Your task to perform on an android device: turn on javascript in the chrome app Image 0: 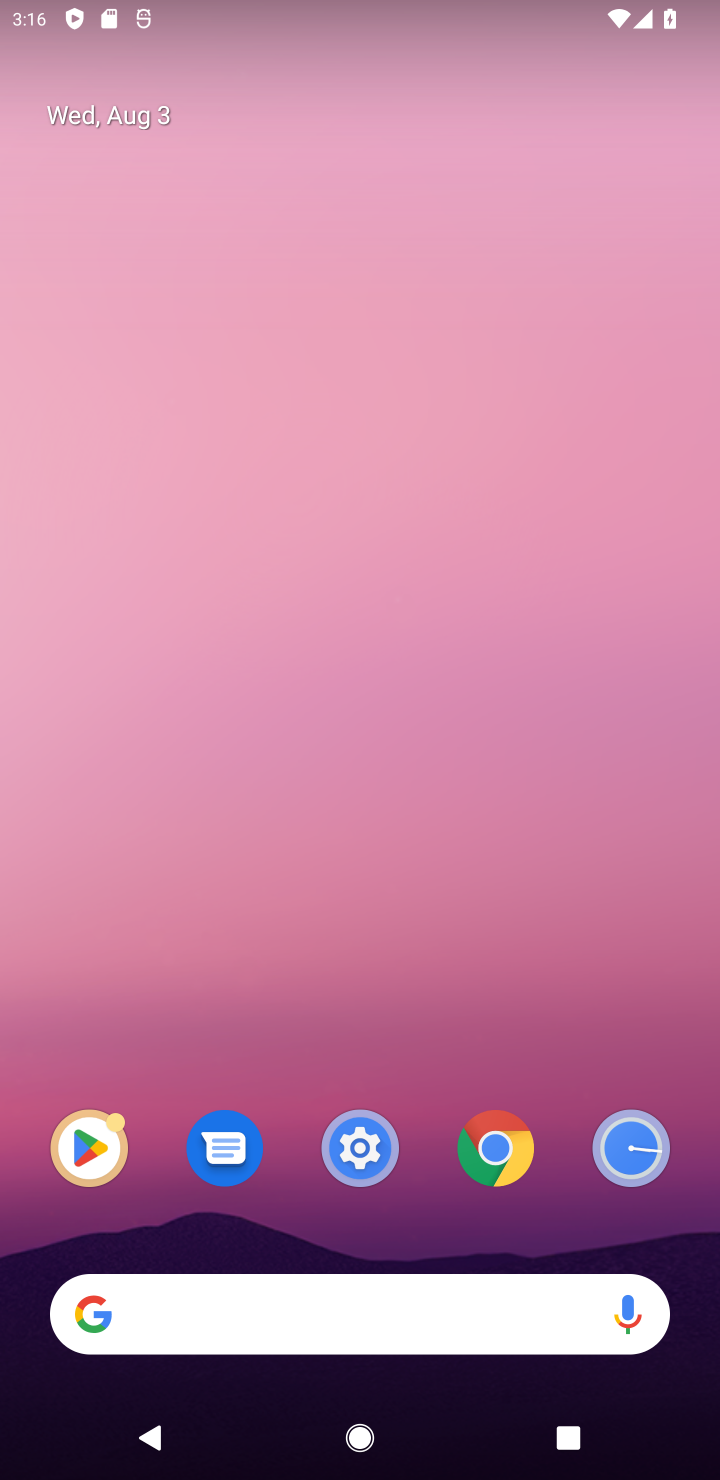
Step 0: drag from (426, 1055) to (457, 143)
Your task to perform on an android device: turn on javascript in the chrome app Image 1: 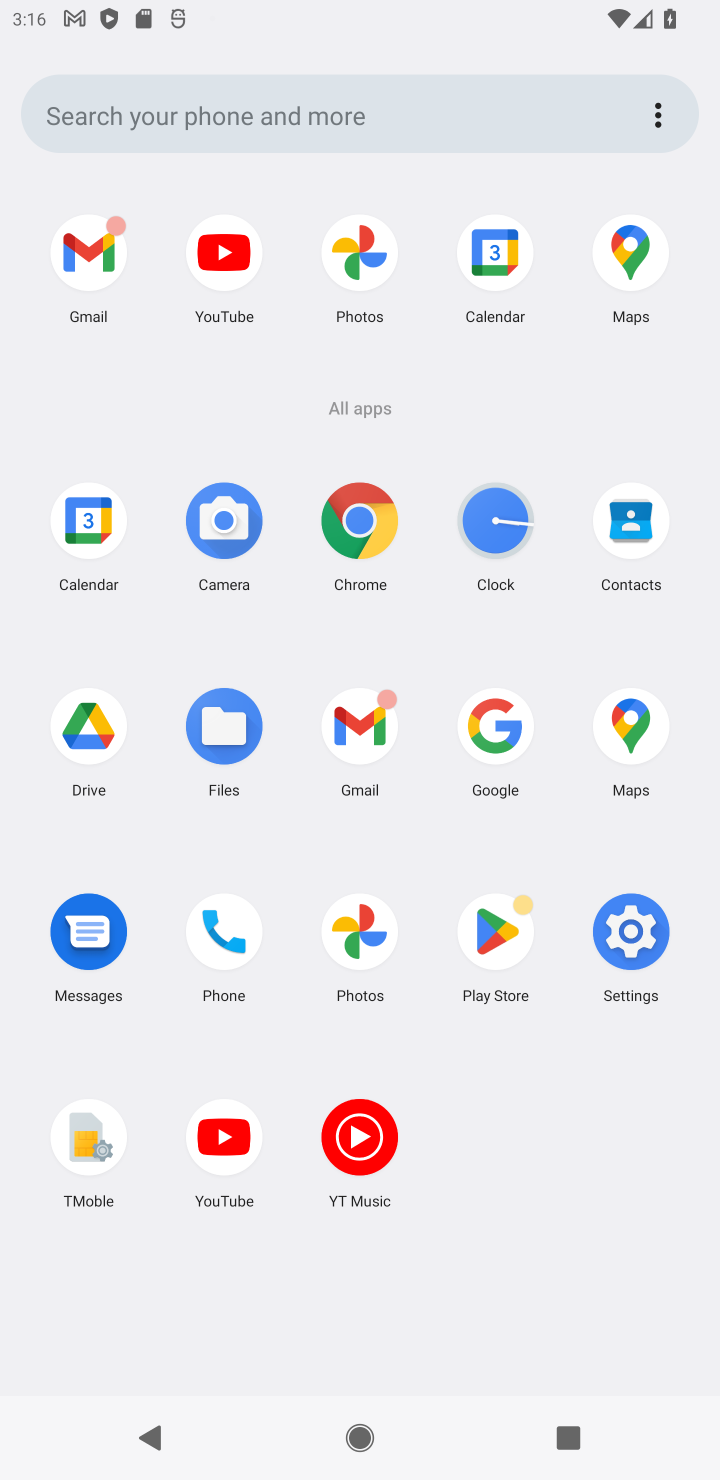
Step 1: click (361, 548)
Your task to perform on an android device: turn on javascript in the chrome app Image 2: 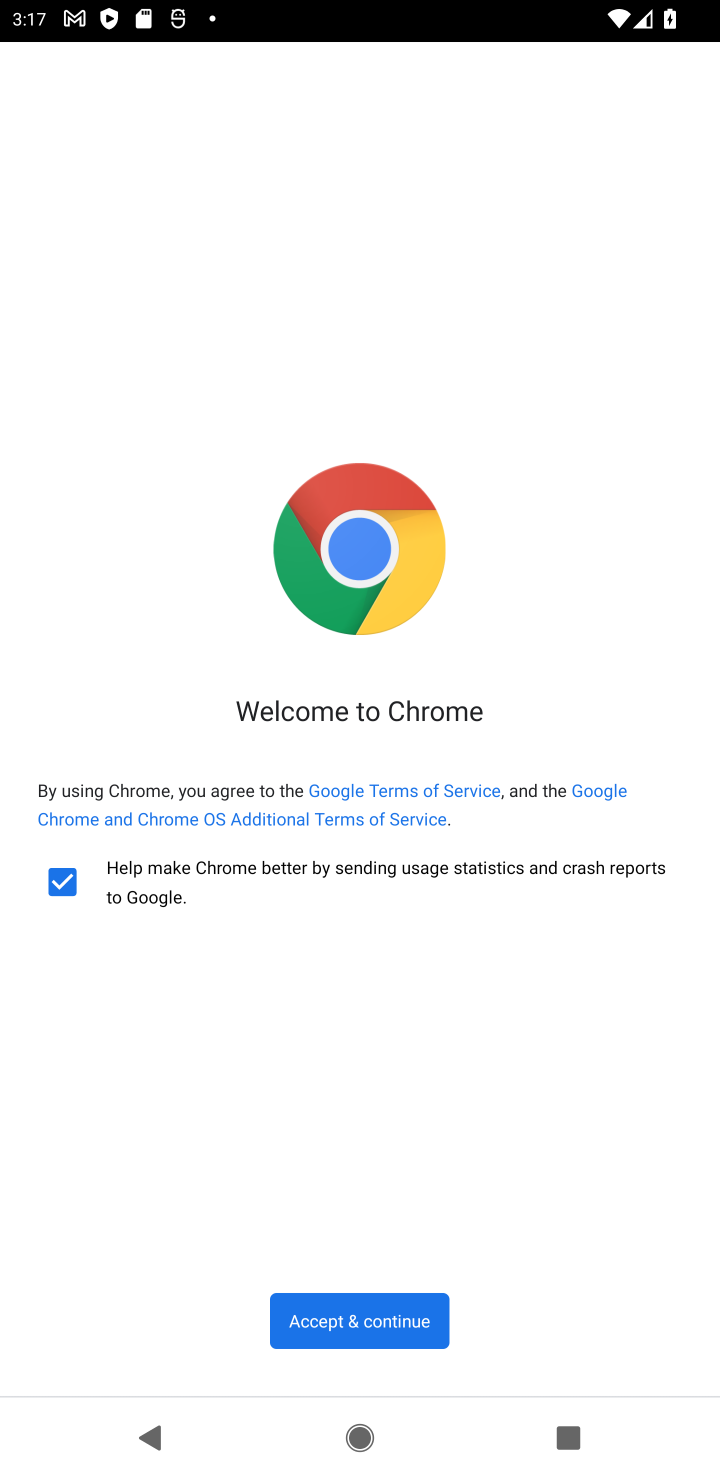
Step 2: click (364, 1321)
Your task to perform on an android device: turn on javascript in the chrome app Image 3: 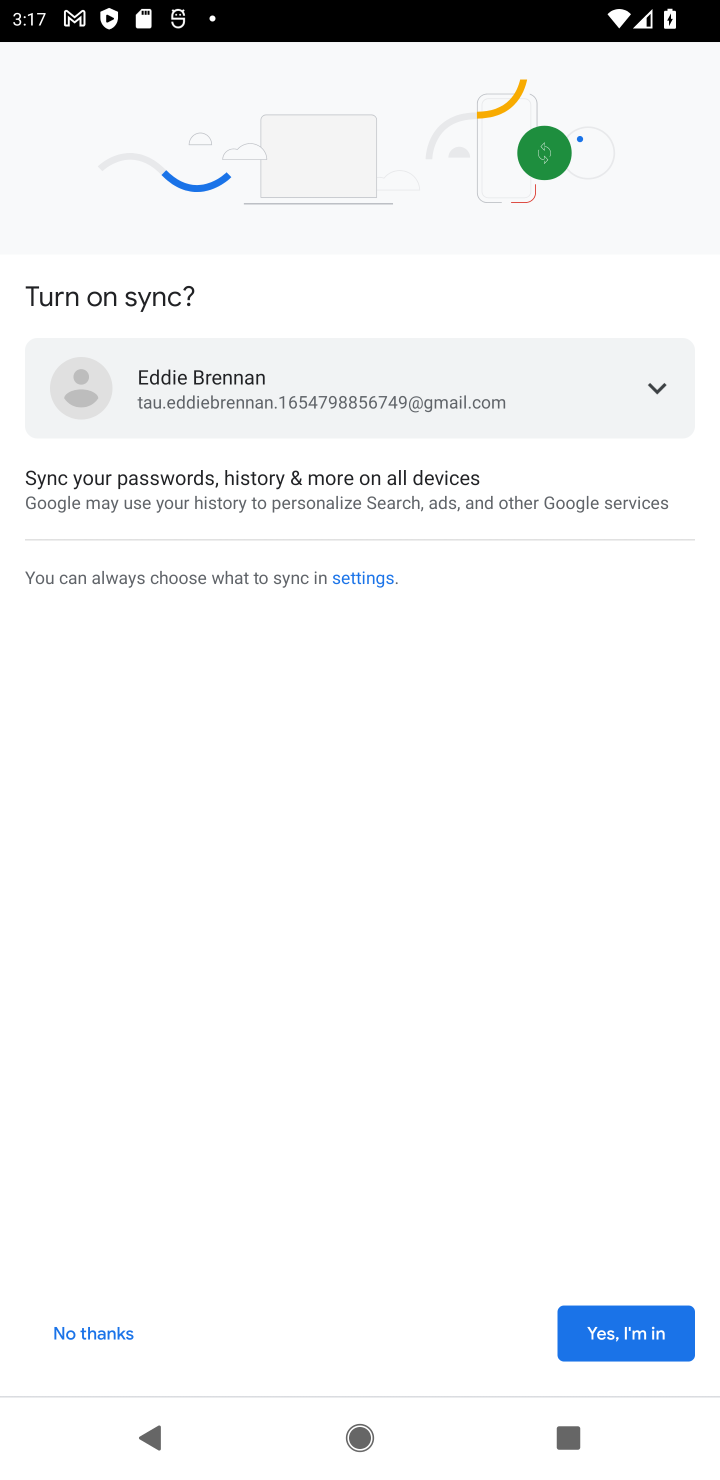
Step 3: click (634, 1344)
Your task to perform on an android device: turn on javascript in the chrome app Image 4: 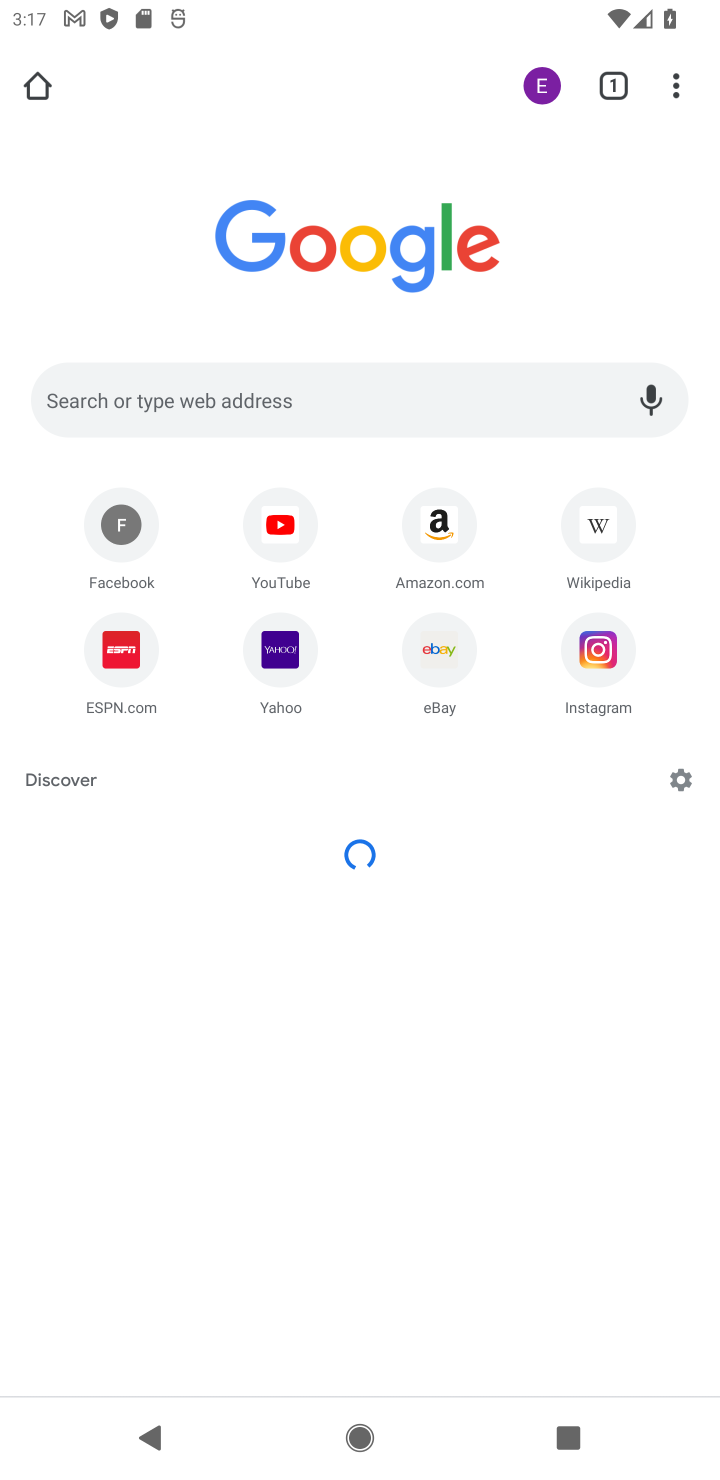
Step 4: click (678, 83)
Your task to perform on an android device: turn on javascript in the chrome app Image 5: 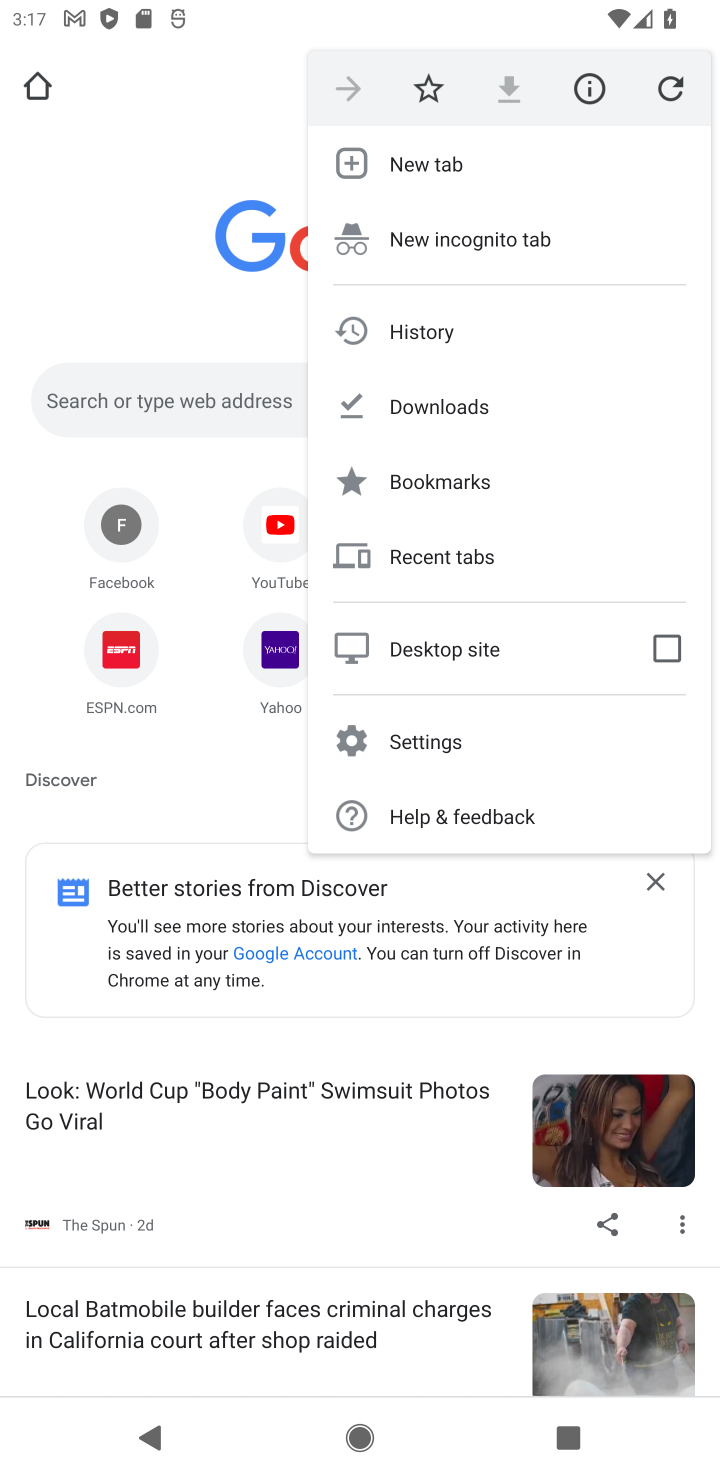
Step 5: click (456, 737)
Your task to perform on an android device: turn on javascript in the chrome app Image 6: 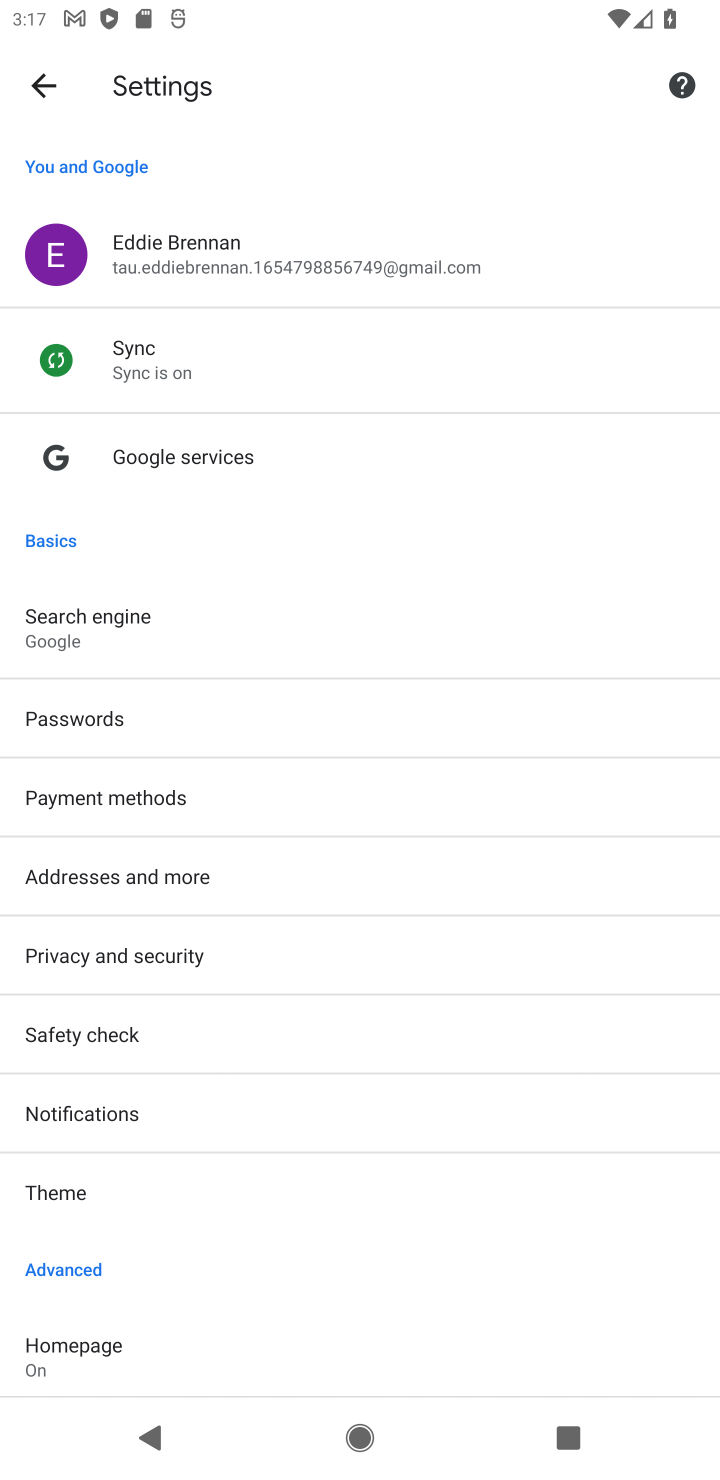
Step 6: drag from (536, 993) to (562, 683)
Your task to perform on an android device: turn on javascript in the chrome app Image 7: 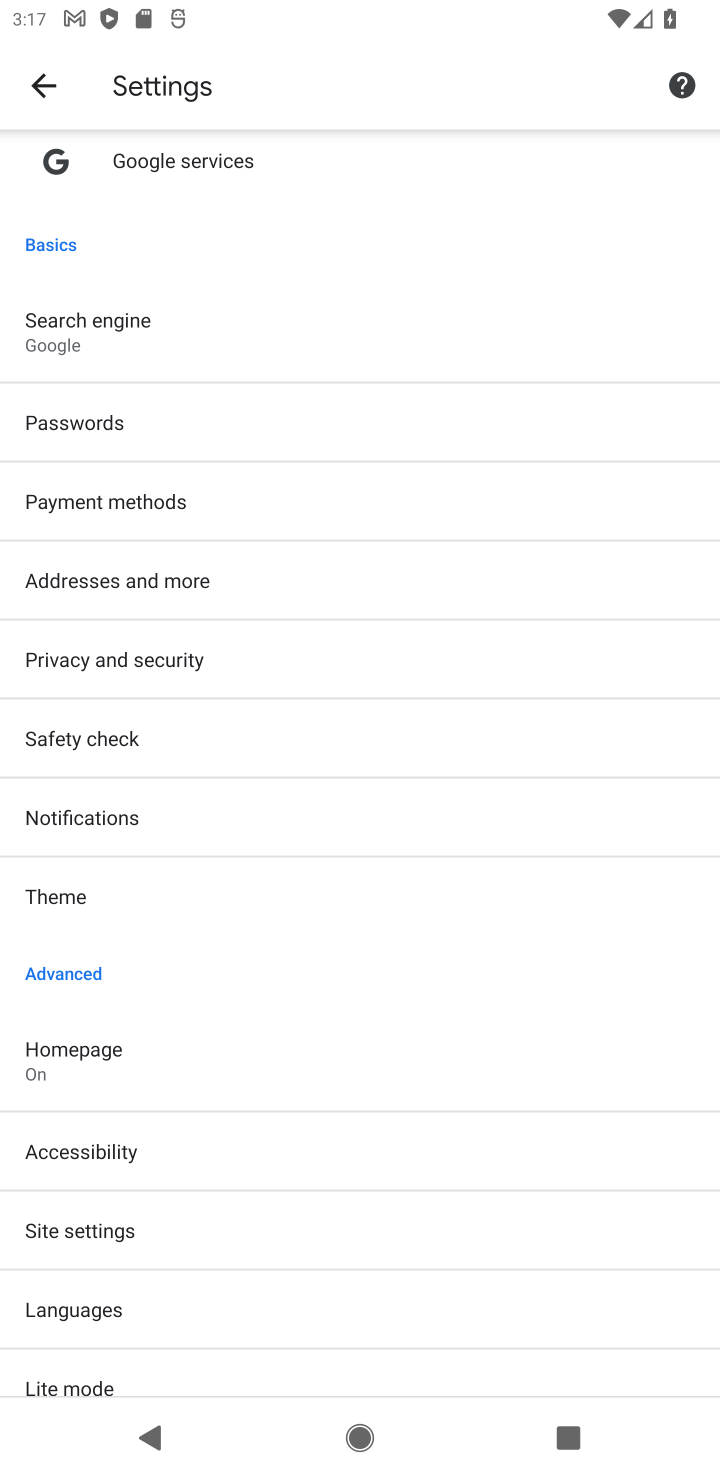
Step 7: drag from (472, 993) to (504, 707)
Your task to perform on an android device: turn on javascript in the chrome app Image 8: 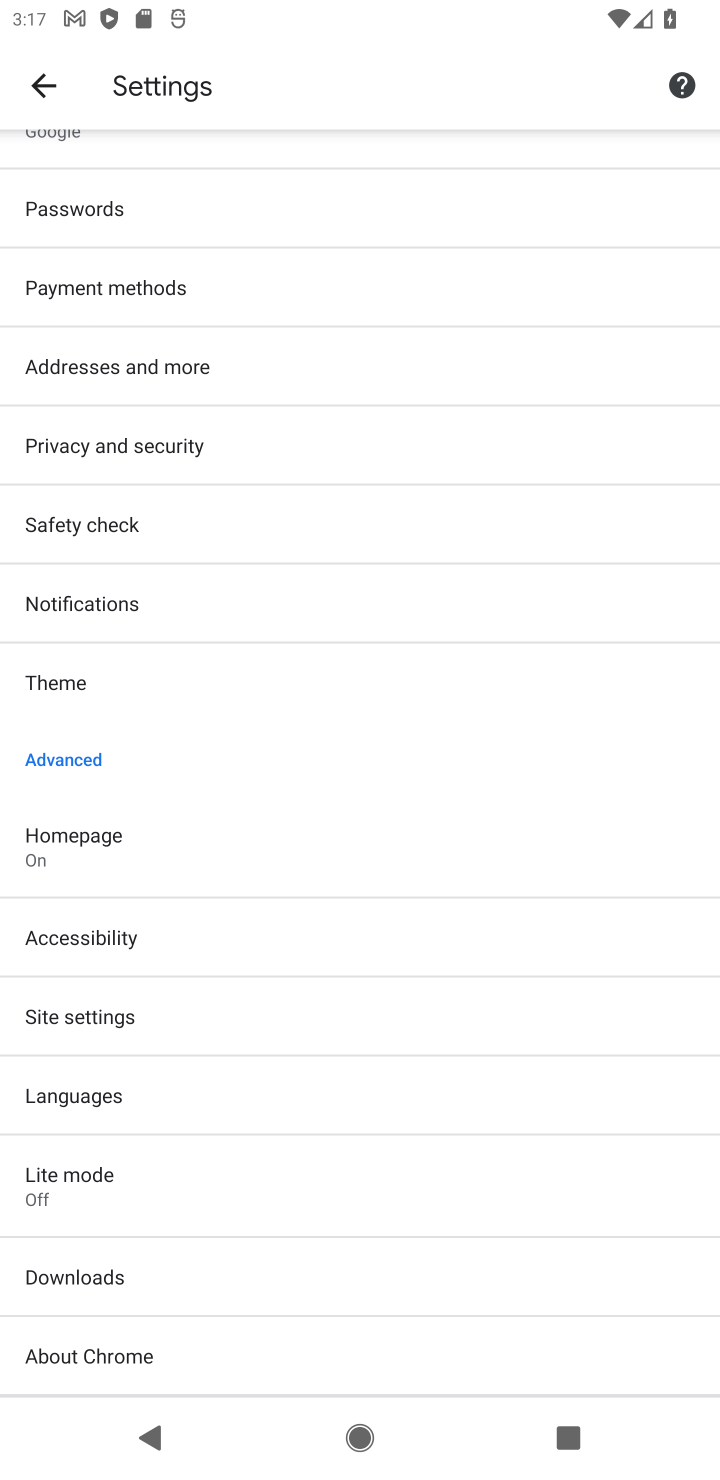
Step 8: drag from (428, 1066) to (445, 749)
Your task to perform on an android device: turn on javascript in the chrome app Image 9: 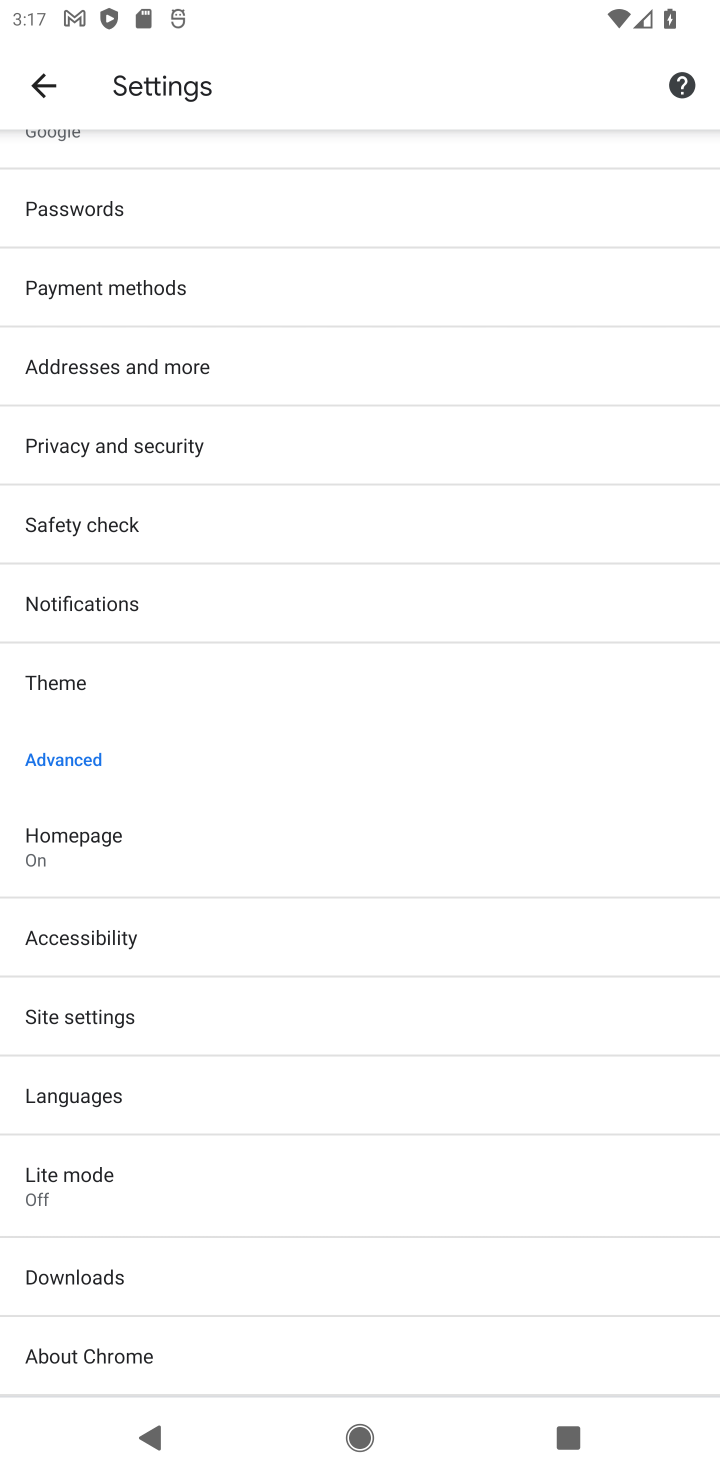
Step 9: click (400, 1017)
Your task to perform on an android device: turn on javascript in the chrome app Image 10: 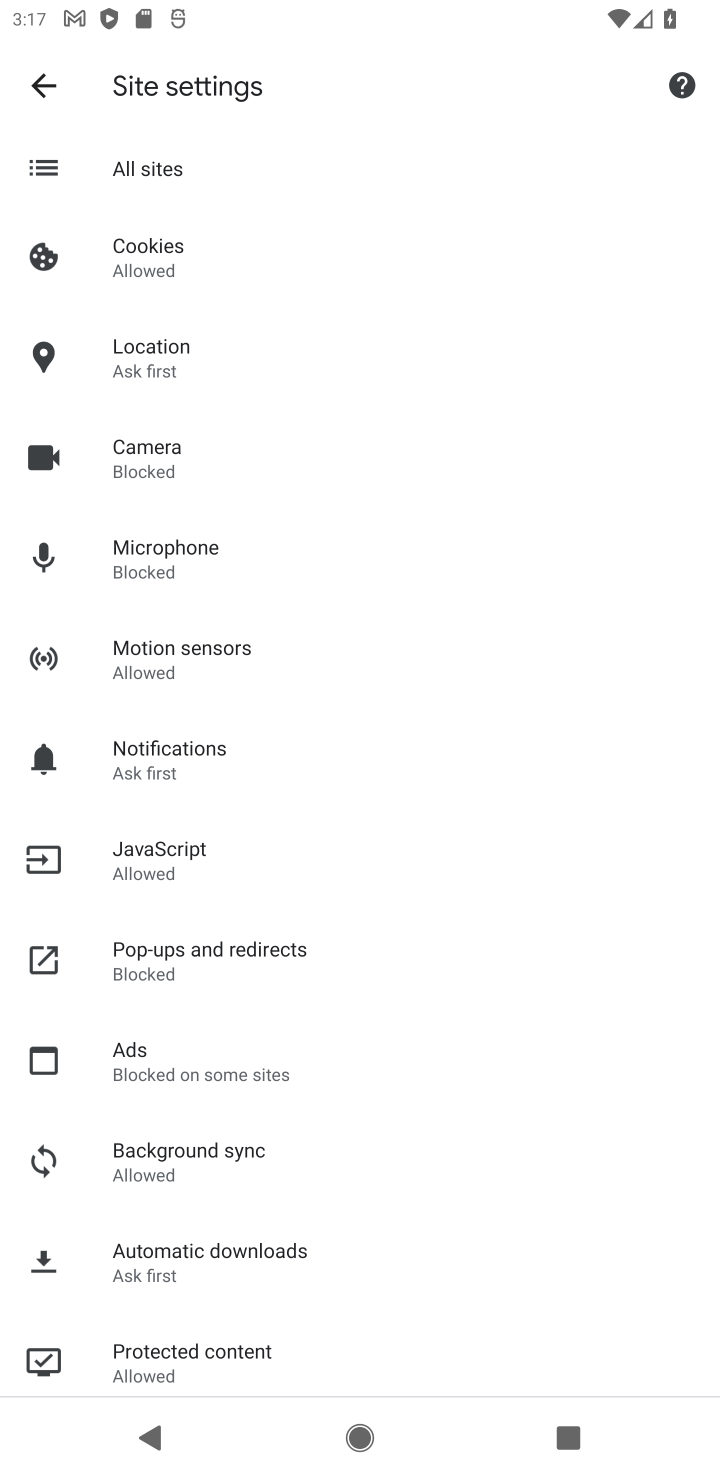
Step 10: drag from (448, 1076) to (493, 644)
Your task to perform on an android device: turn on javascript in the chrome app Image 11: 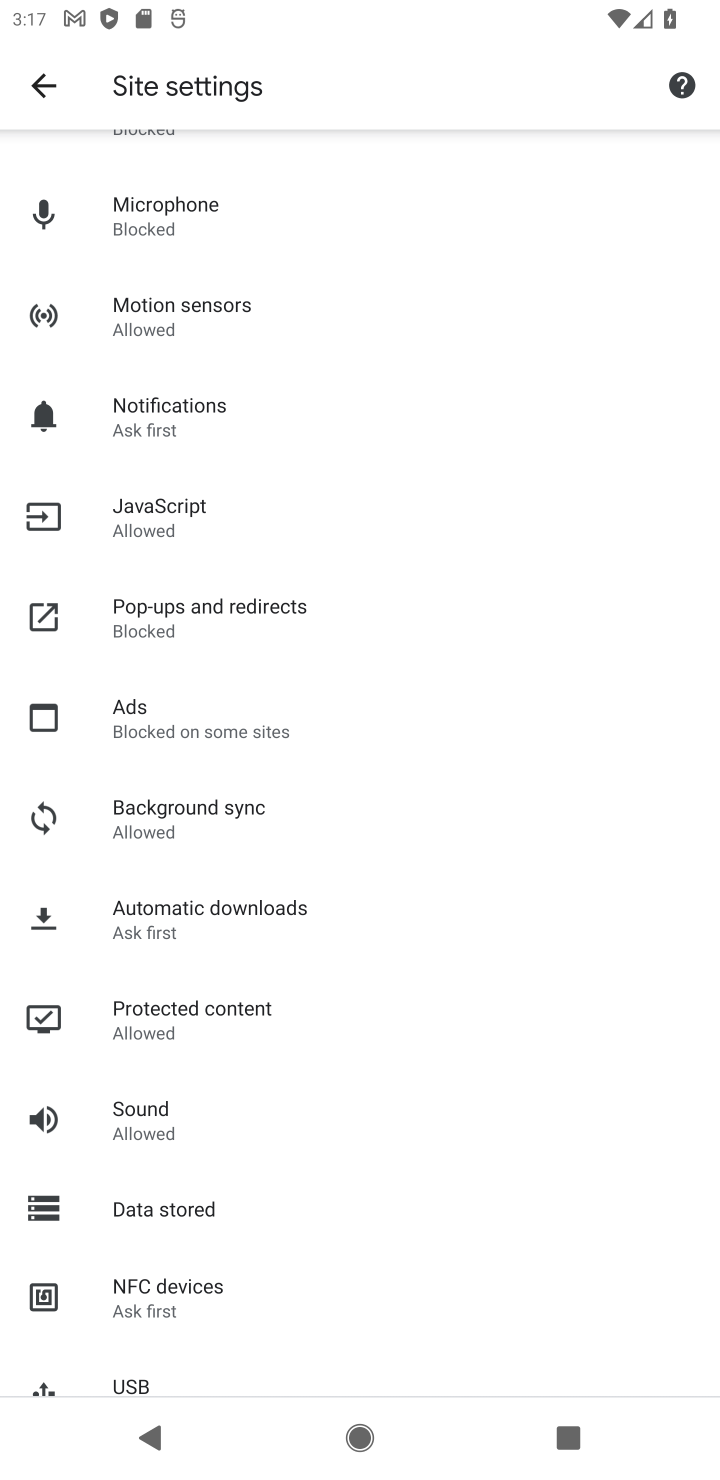
Step 11: drag from (419, 1120) to (465, 654)
Your task to perform on an android device: turn on javascript in the chrome app Image 12: 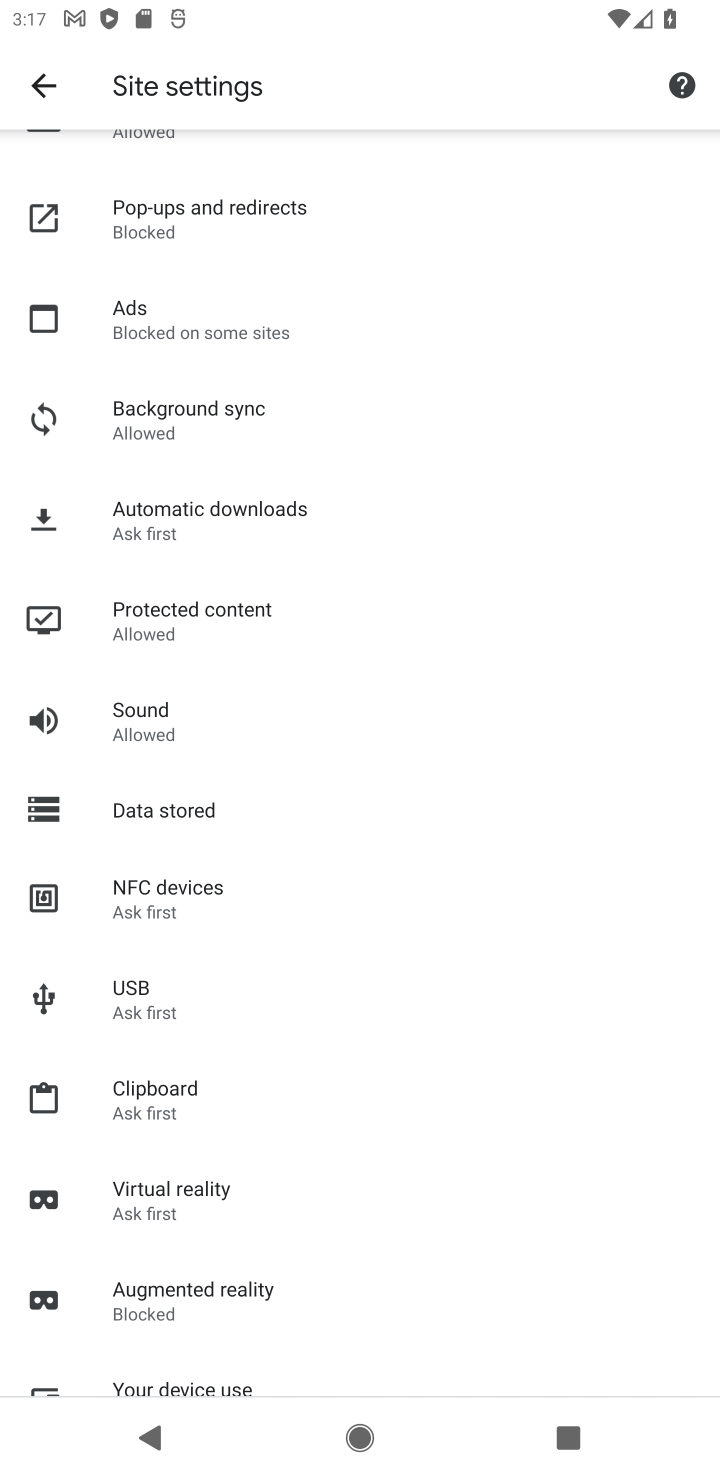
Step 12: drag from (392, 1136) to (433, 678)
Your task to perform on an android device: turn on javascript in the chrome app Image 13: 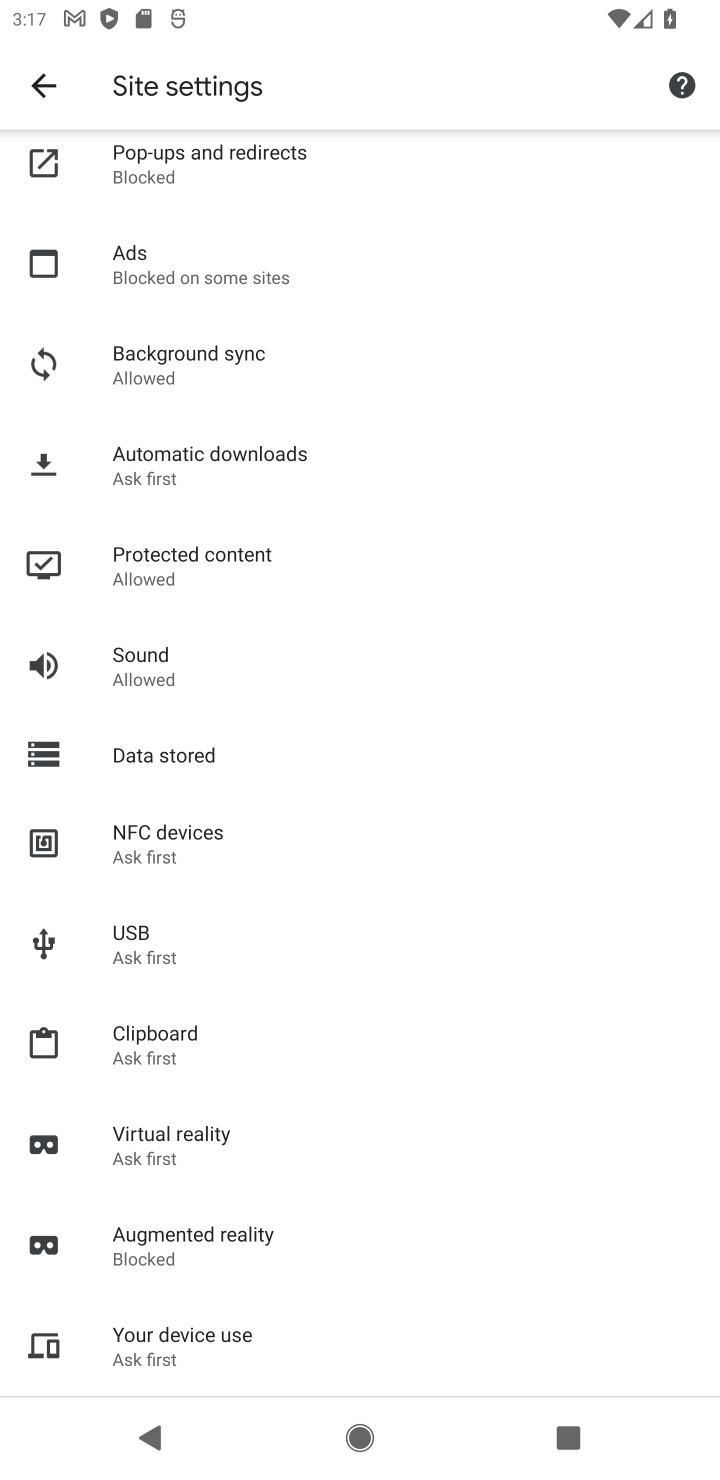
Step 13: drag from (457, 502) to (444, 979)
Your task to perform on an android device: turn on javascript in the chrome app Image 14: 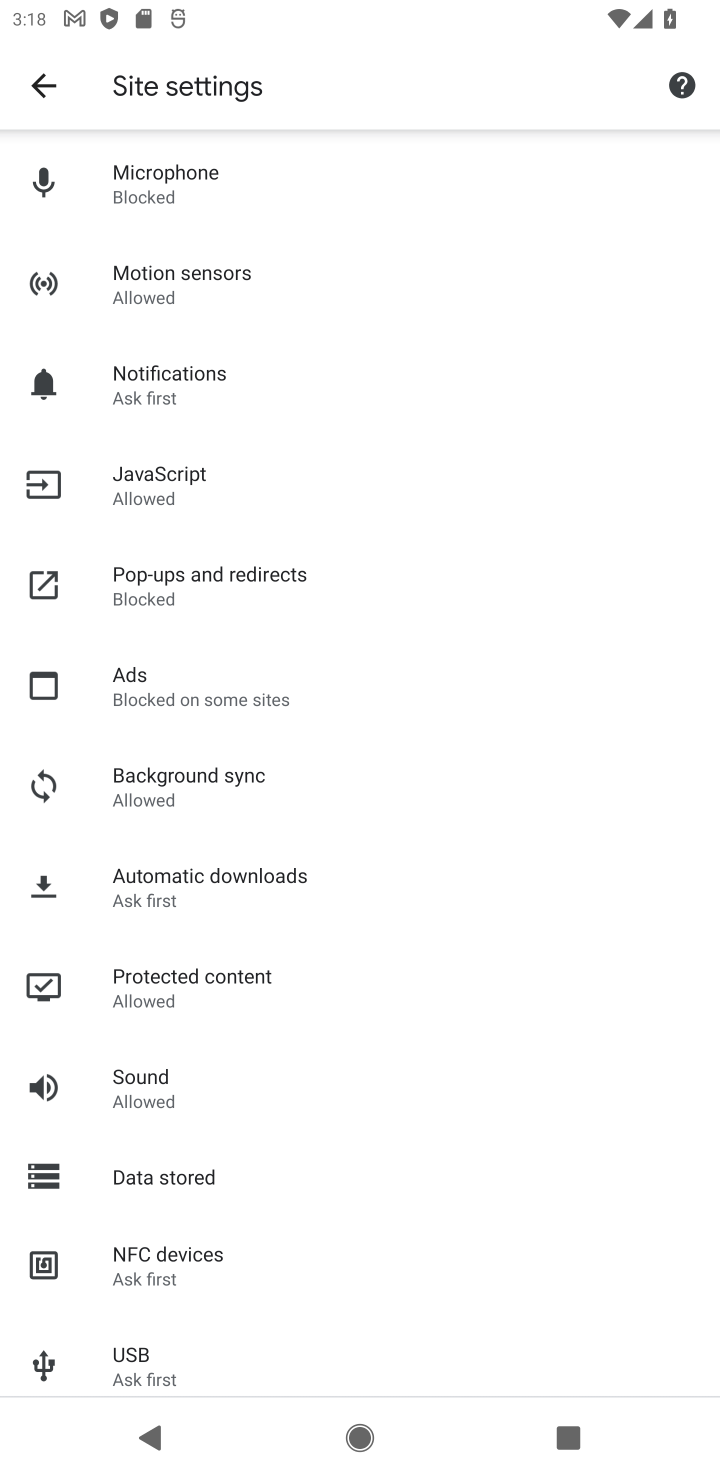
Step 14: click (199, 466)
Your task to perform on an android device: turn on javascript in the chrome app Image 15: 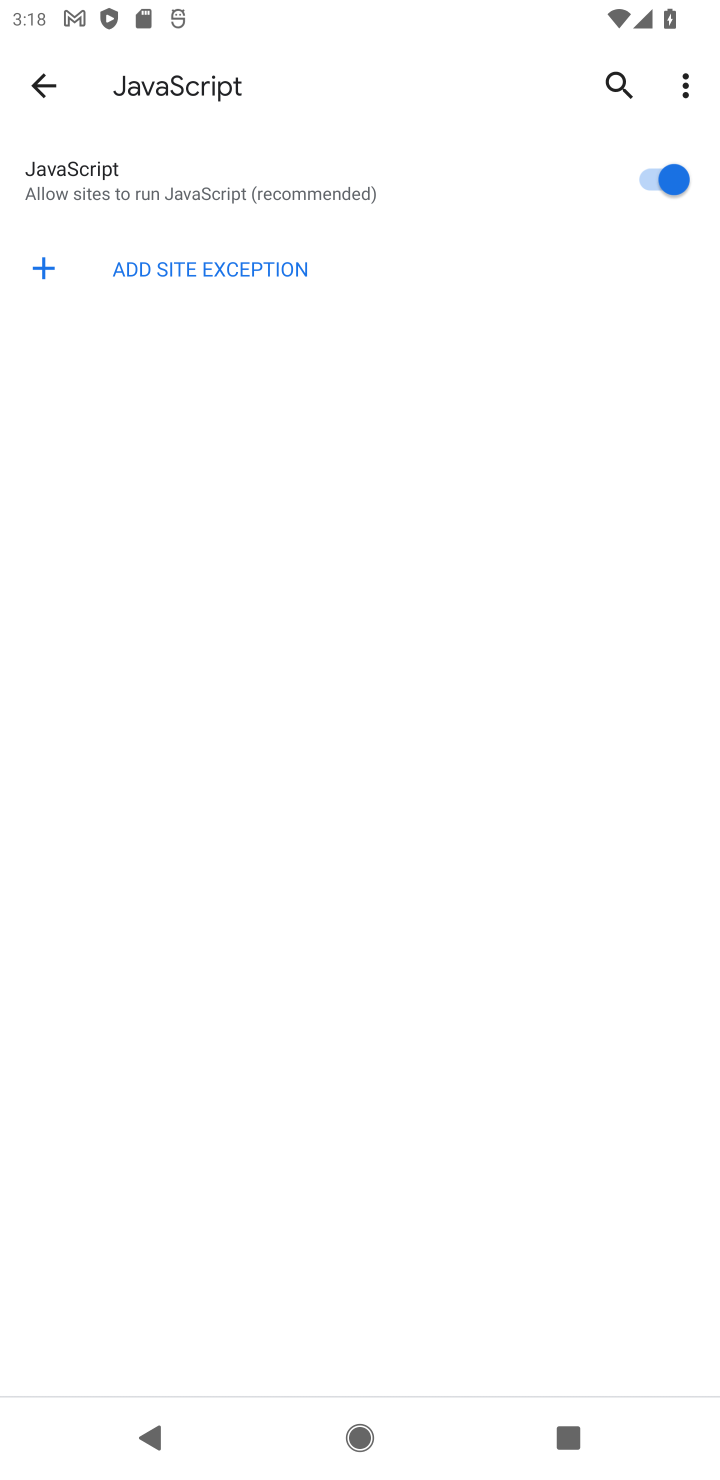
Step 15: task complete